Your task to perform on an android device: Search for a new lipstick on Sephora Image 0: 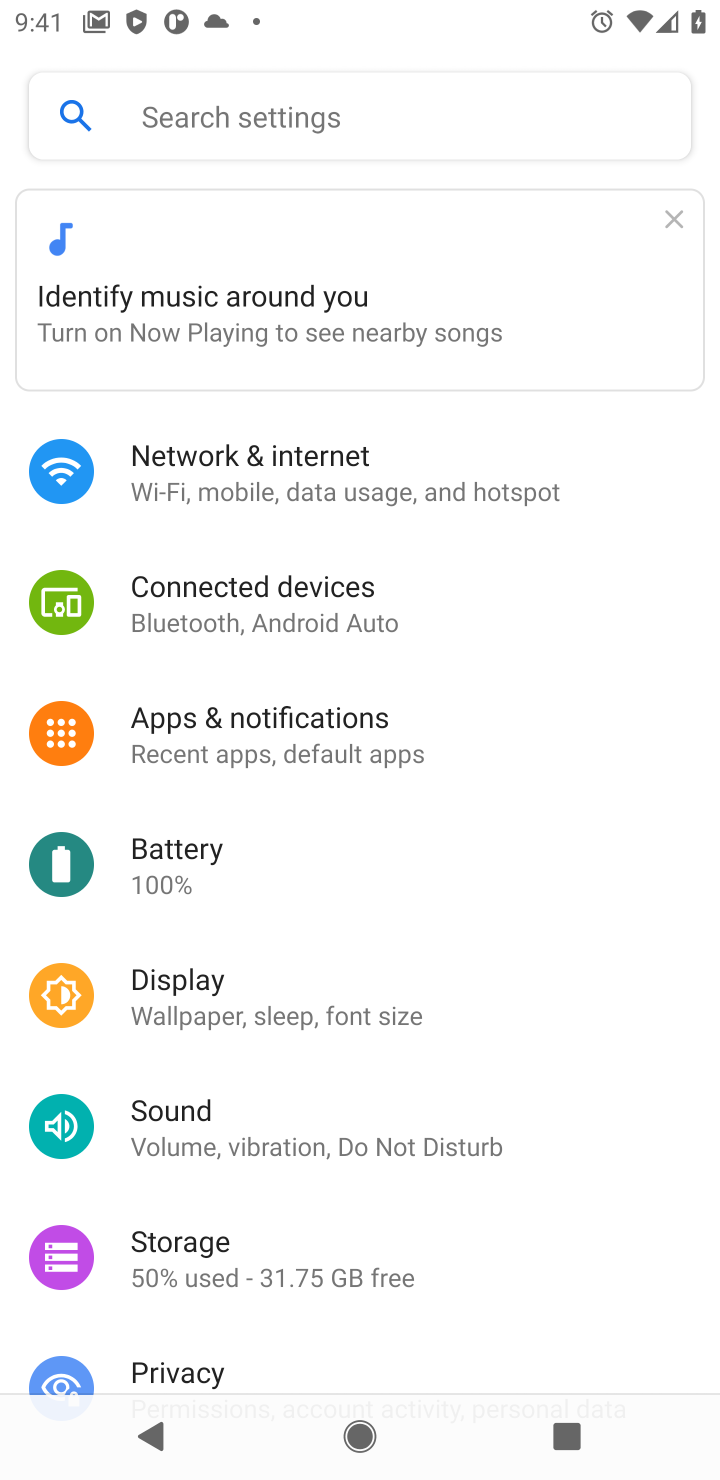
Step 0: press home button
Your task to perform on an android device: Search for a new lipstick on Sephora Image 1: 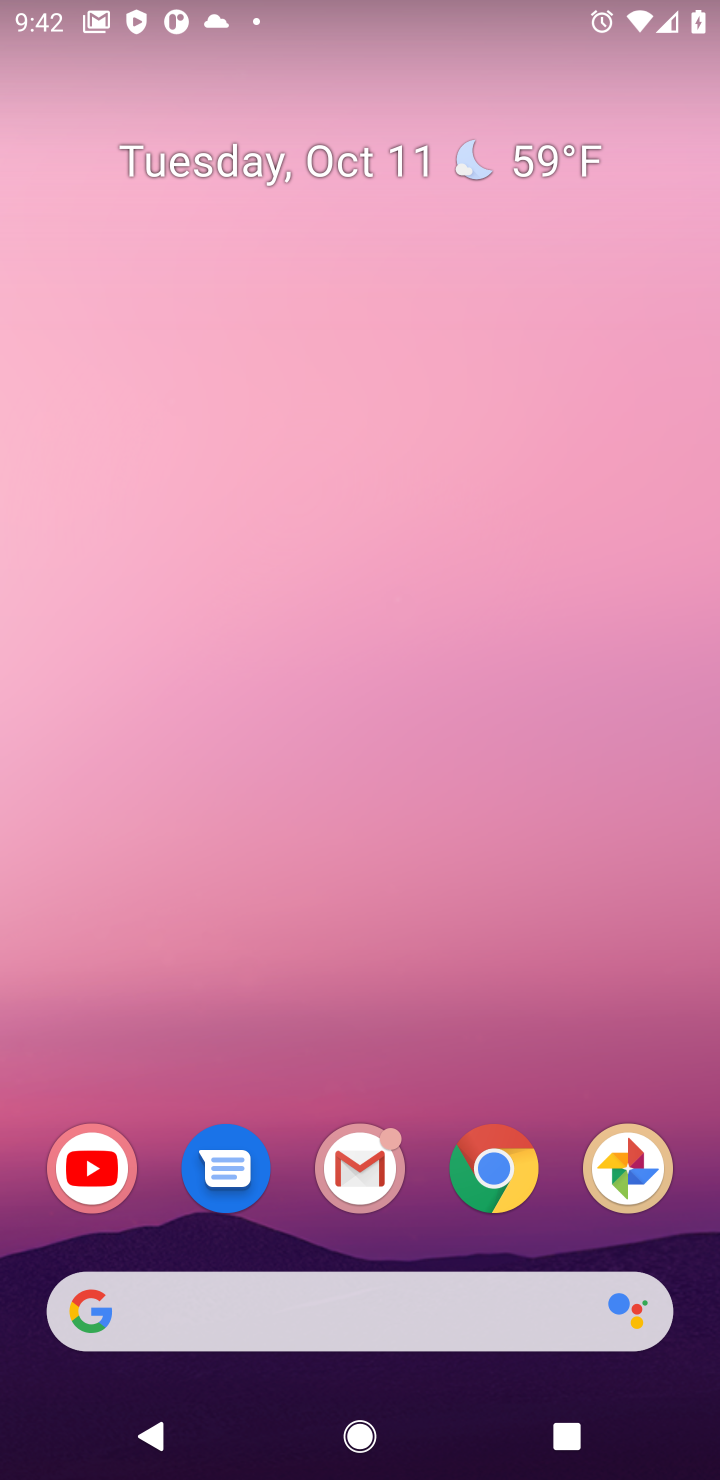
Step 1: click (495, 1172)
Your task to perform on an android device: Search for a new lipstick on Sephora Image 2: 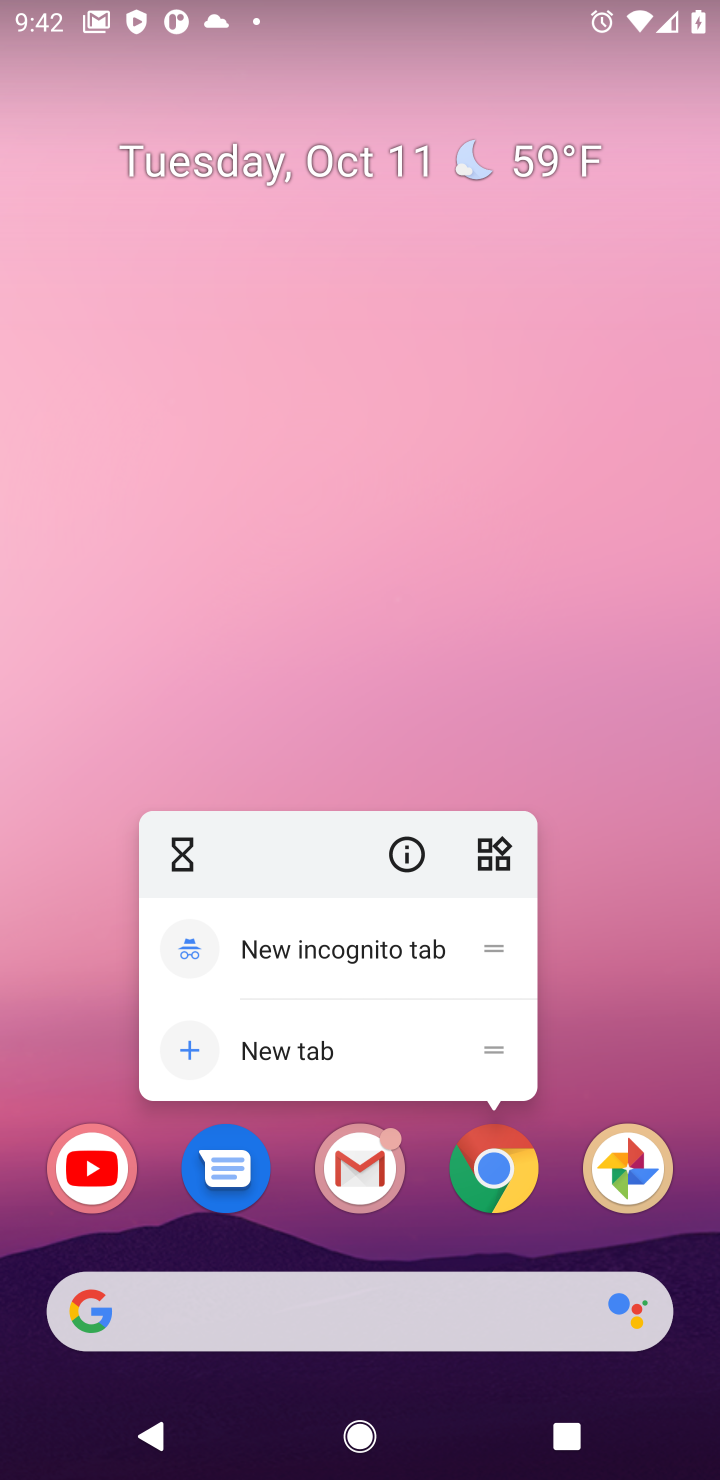
Step 2: press back button
Your task to perform on an android device: Search for a new lipstick on Sephora Image 3: 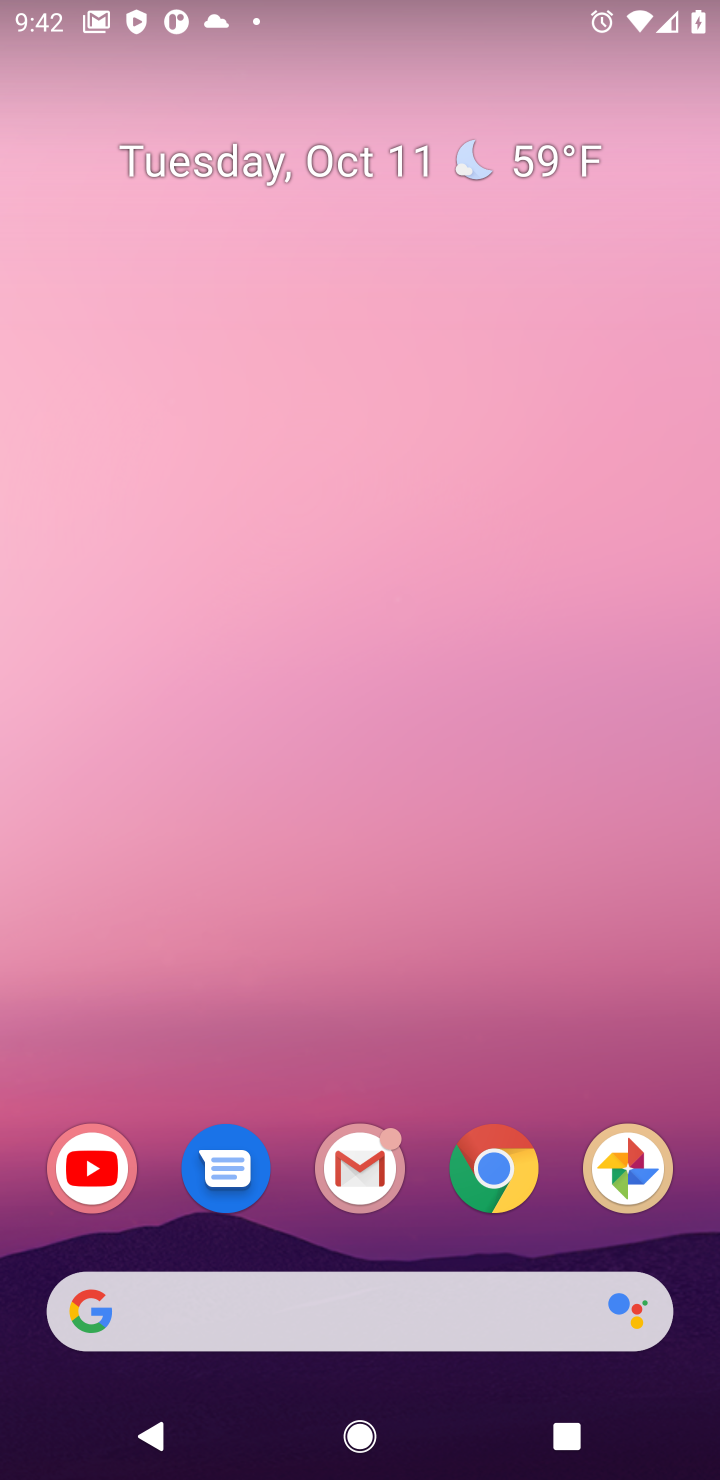
Step 3: click (501, 1197)
Your task to perform on an android device: Search for a new lipstick on Sephora Image 4: 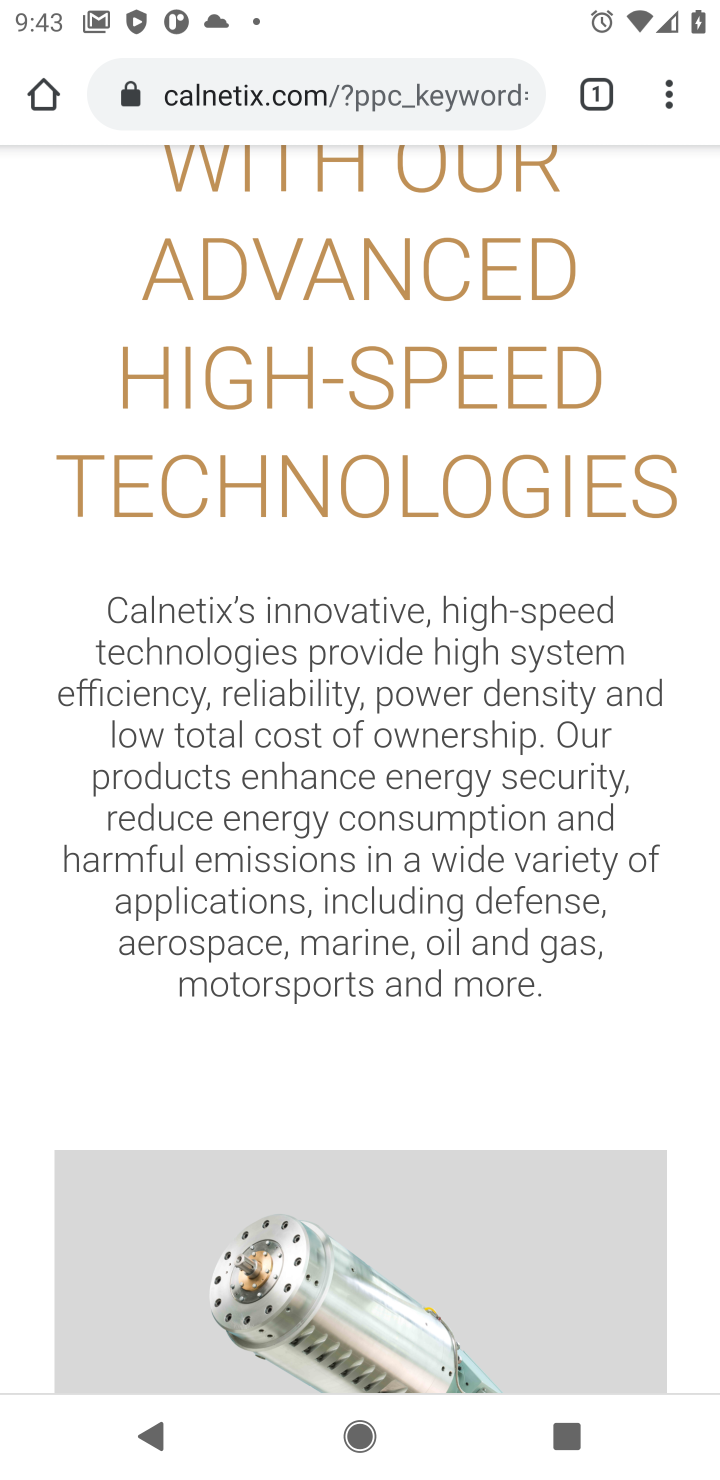
Step 4: click (241, 75)
Your task to perform on an android device: Search for a new lipstick on Sephora Image 5: 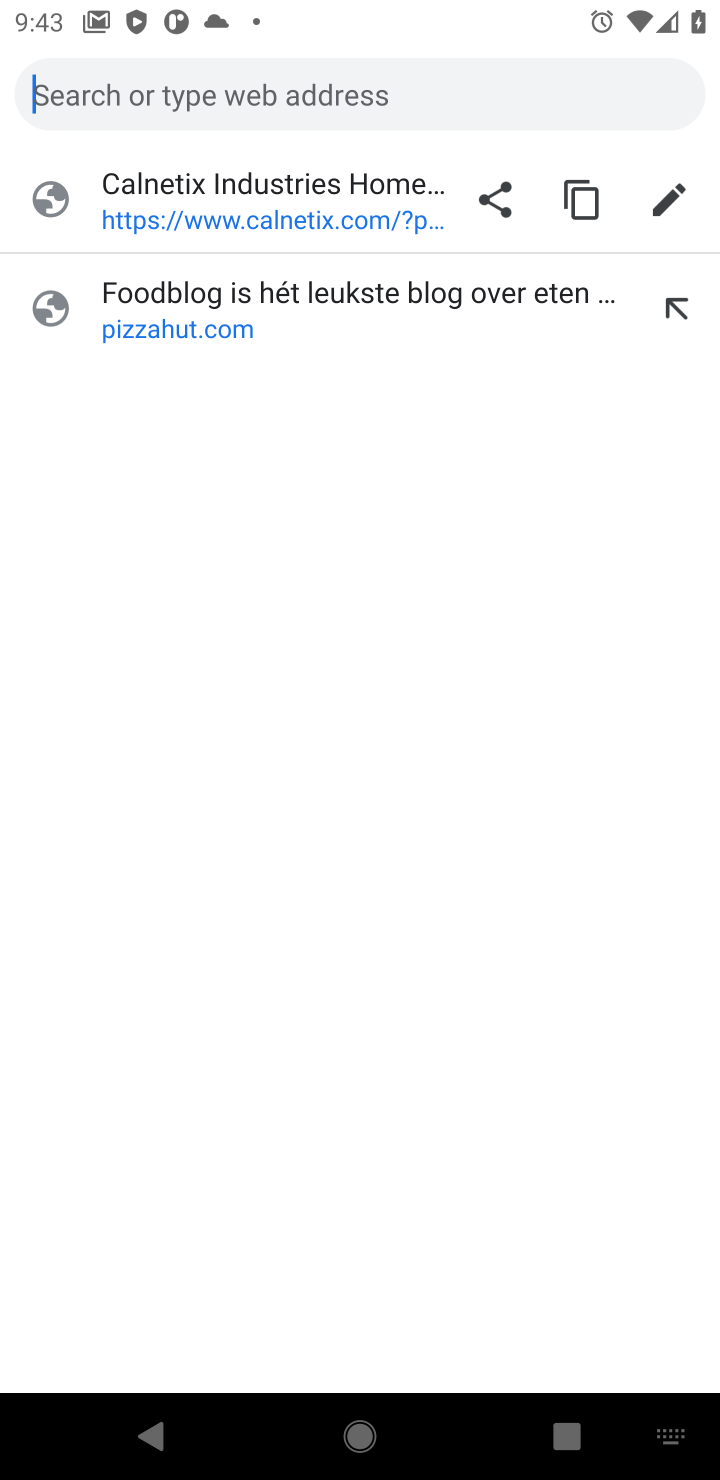
Step 5: type "new lipstick on sephora"
Your task to perform on an android device: Search for a new lipstick on Sephora Image 6: 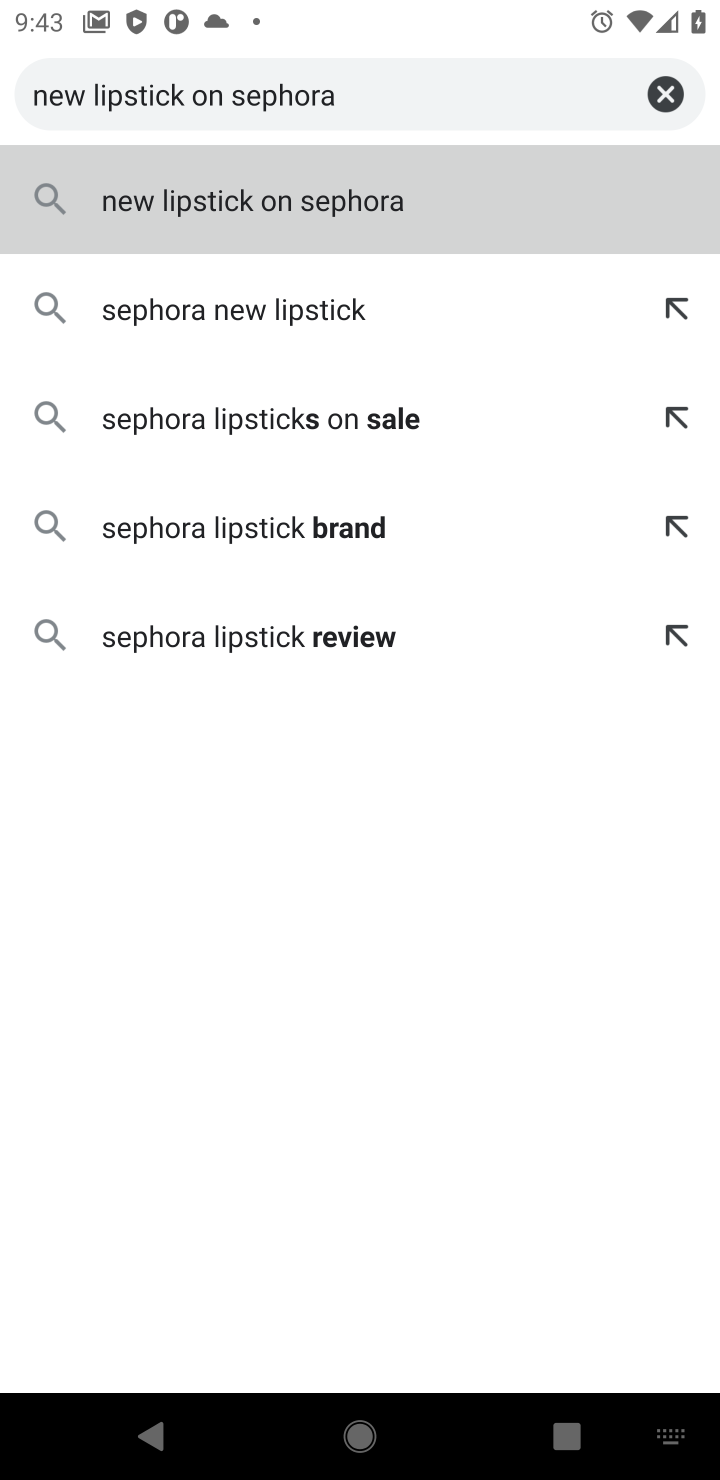
Step 6: type ""
Your task to perform on an android device: Search for a new lipstick on Sephora Image 7: 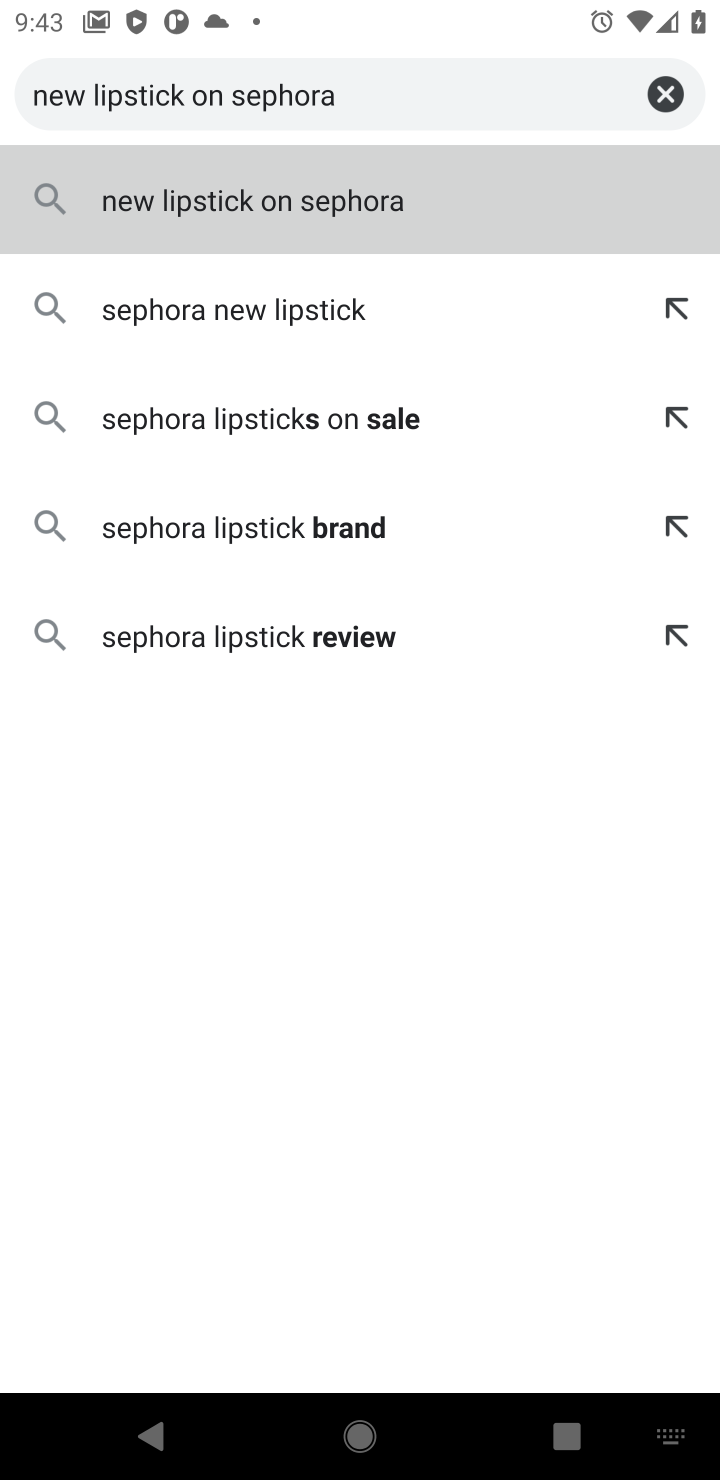
Step 7: click (396, 198)
Your task to perform on an android device: Search for a new lipstick on Sephora Image 8: 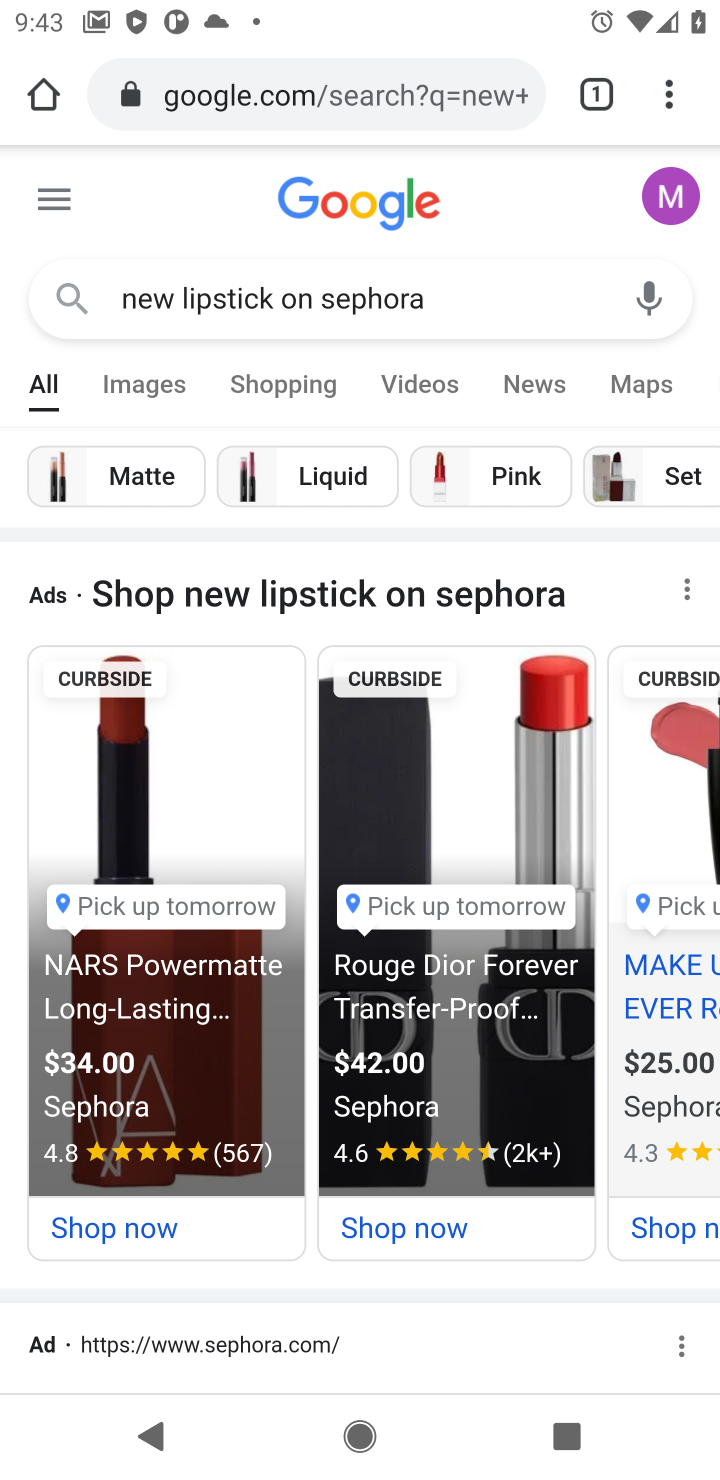
Step 8: drag from (223, 1062) to (249, 252)
Your task to perform on an android device: Search for a new lipstick on Sephora Image 9: 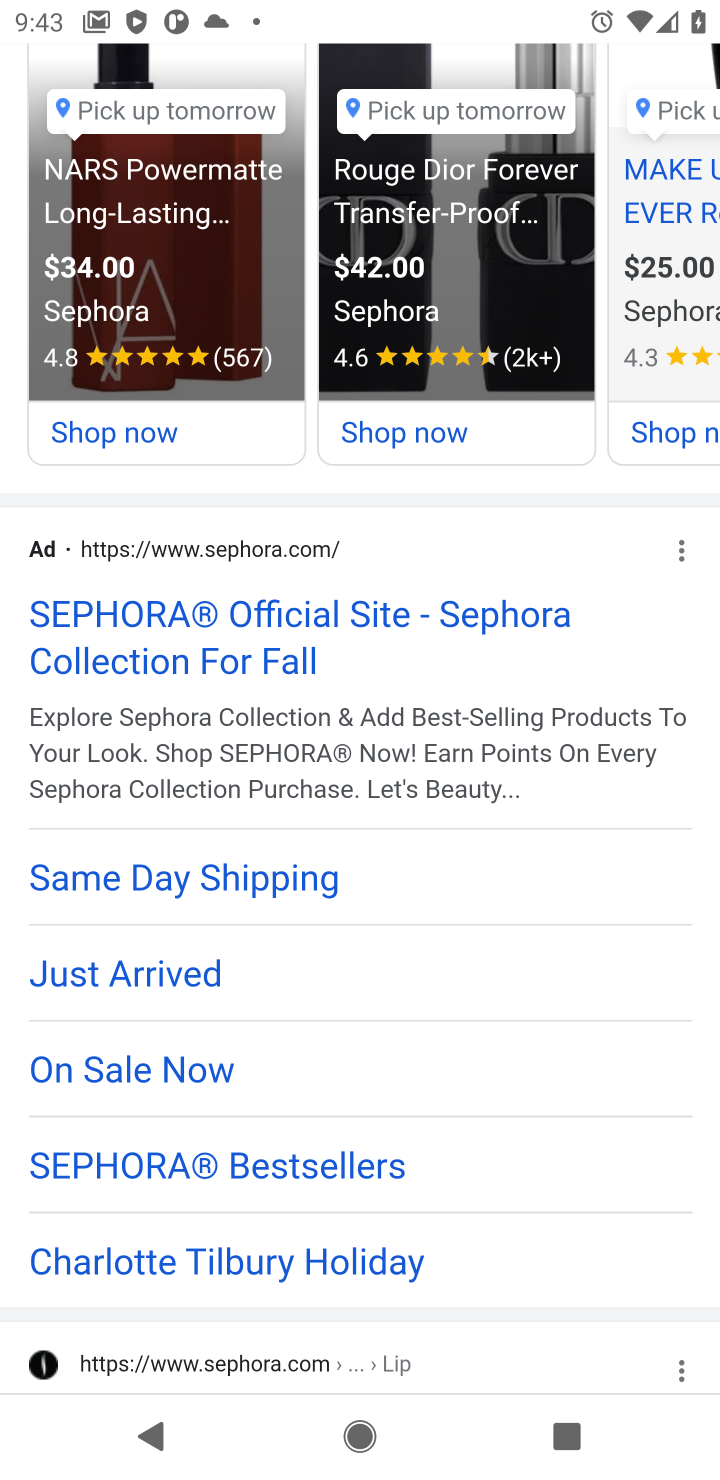
Step 9: click (117, 615)
Your task to perform on an android device: Search for a new lipstick on Sephora Image 10: 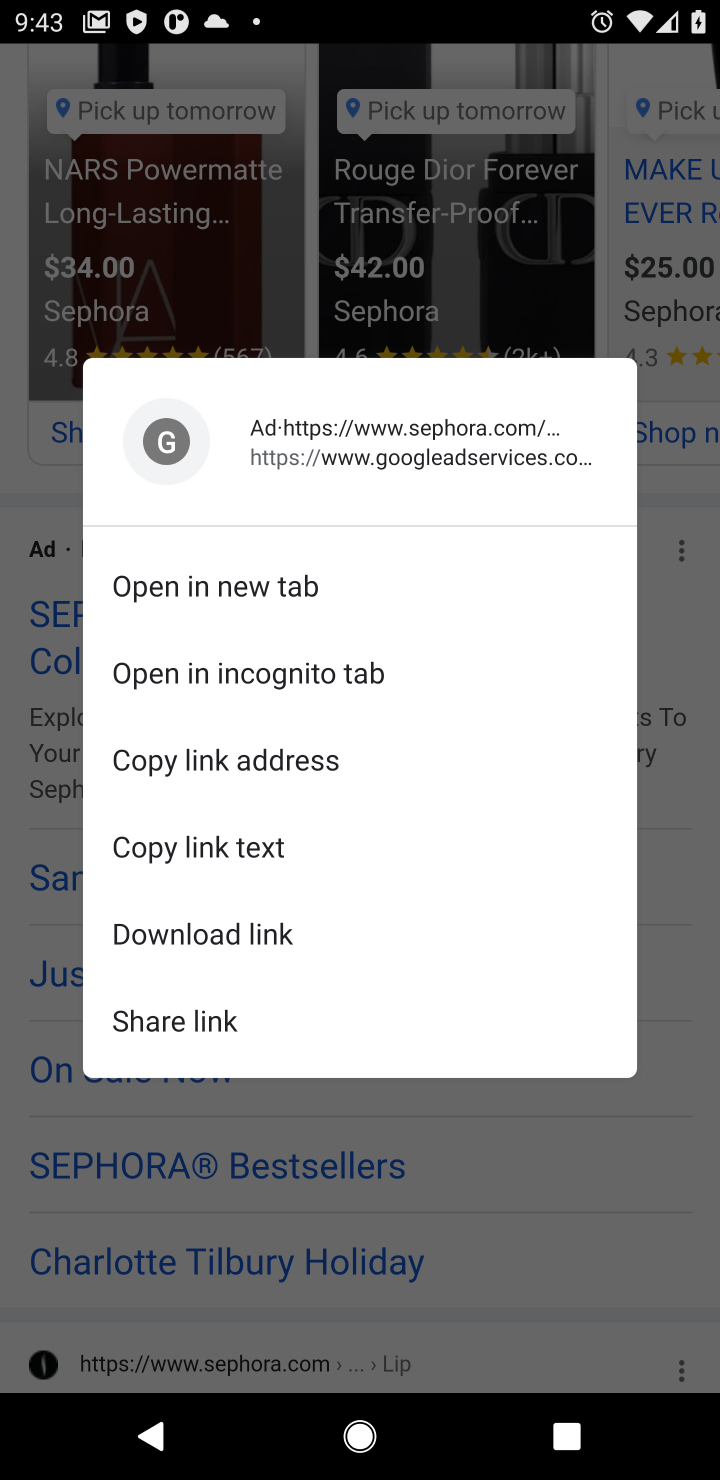
Step 10: click (303, 1164)
Your task to perform on an android device: Search for a new lipstick on Sephora Image 11: 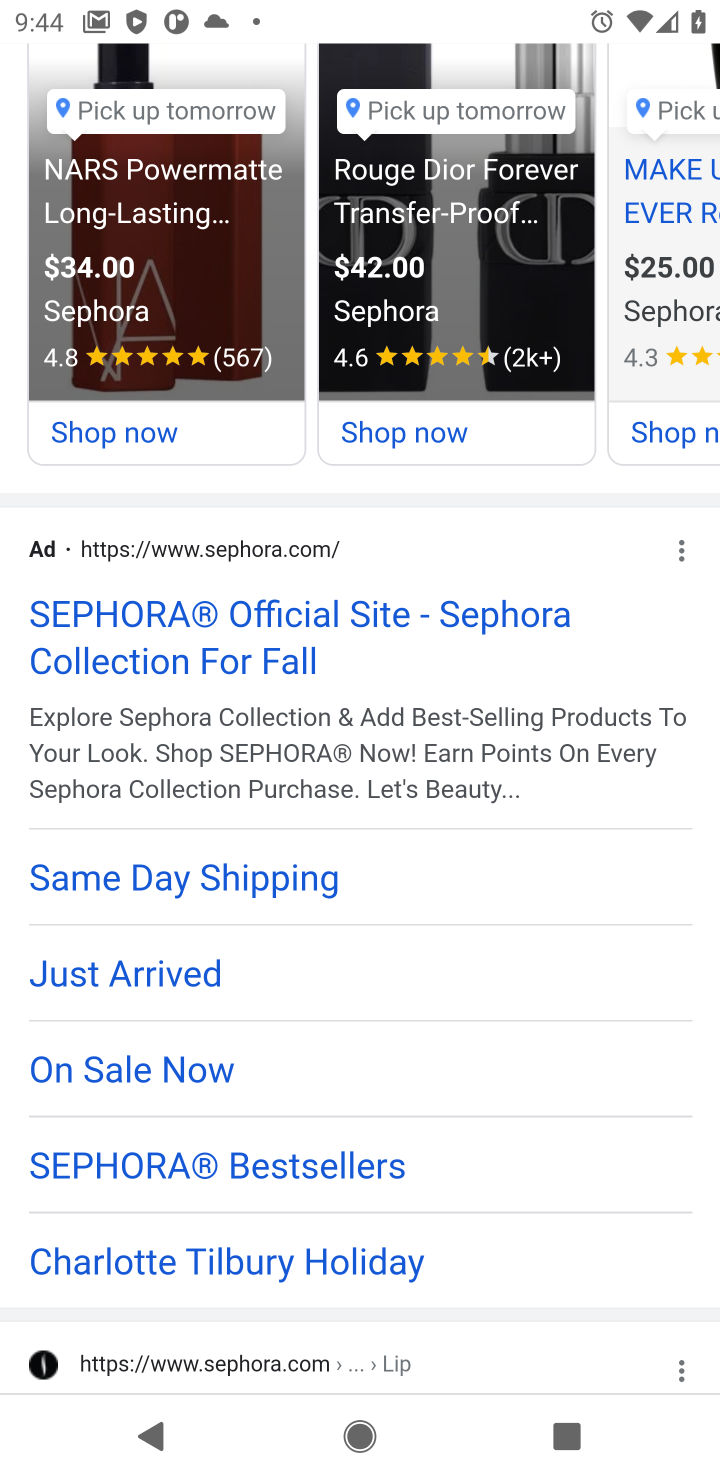
Step 11: click (341, 602)
Your task to perform on an android device: Search for a new lipstick on Sephora Image 12: 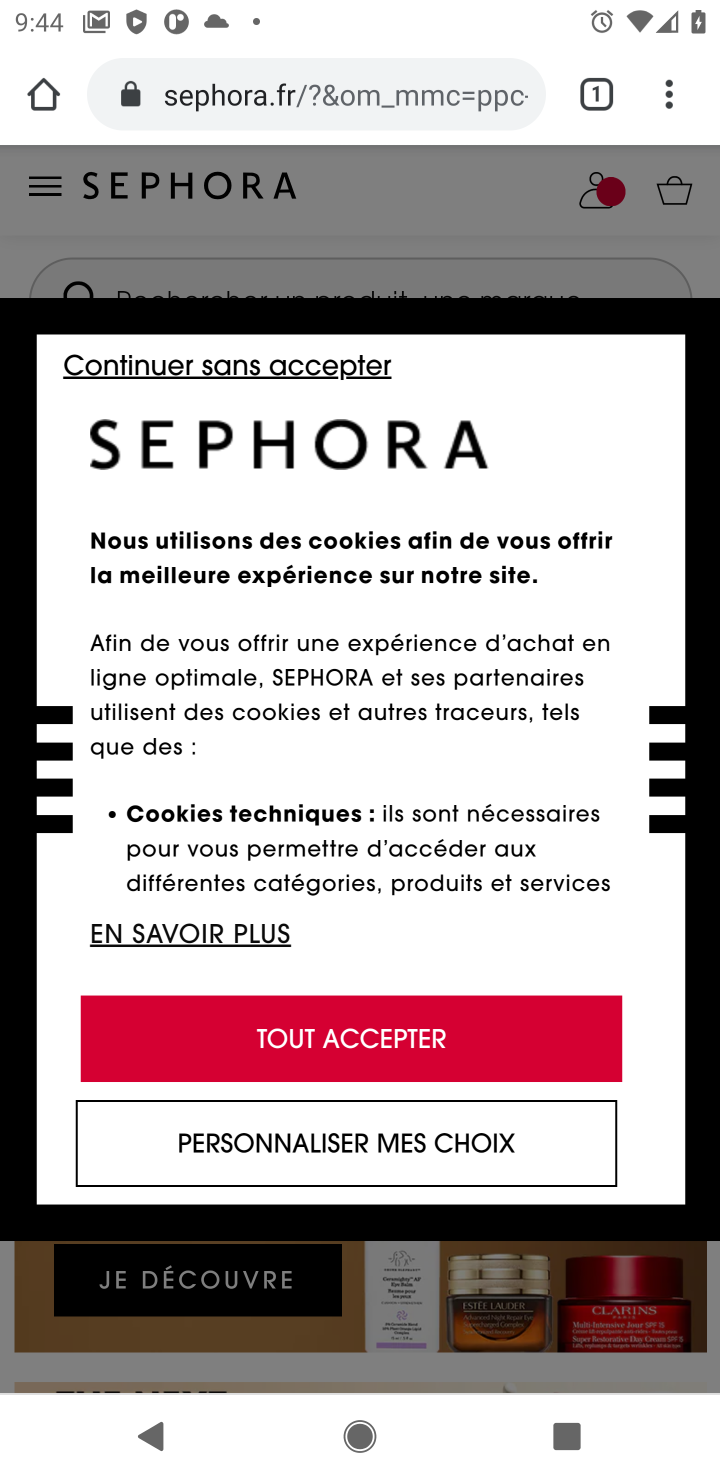
Step 12: click (420, 1033)
Your task to perform on an android device: Search for a new lipstick on Sephora Image 13: 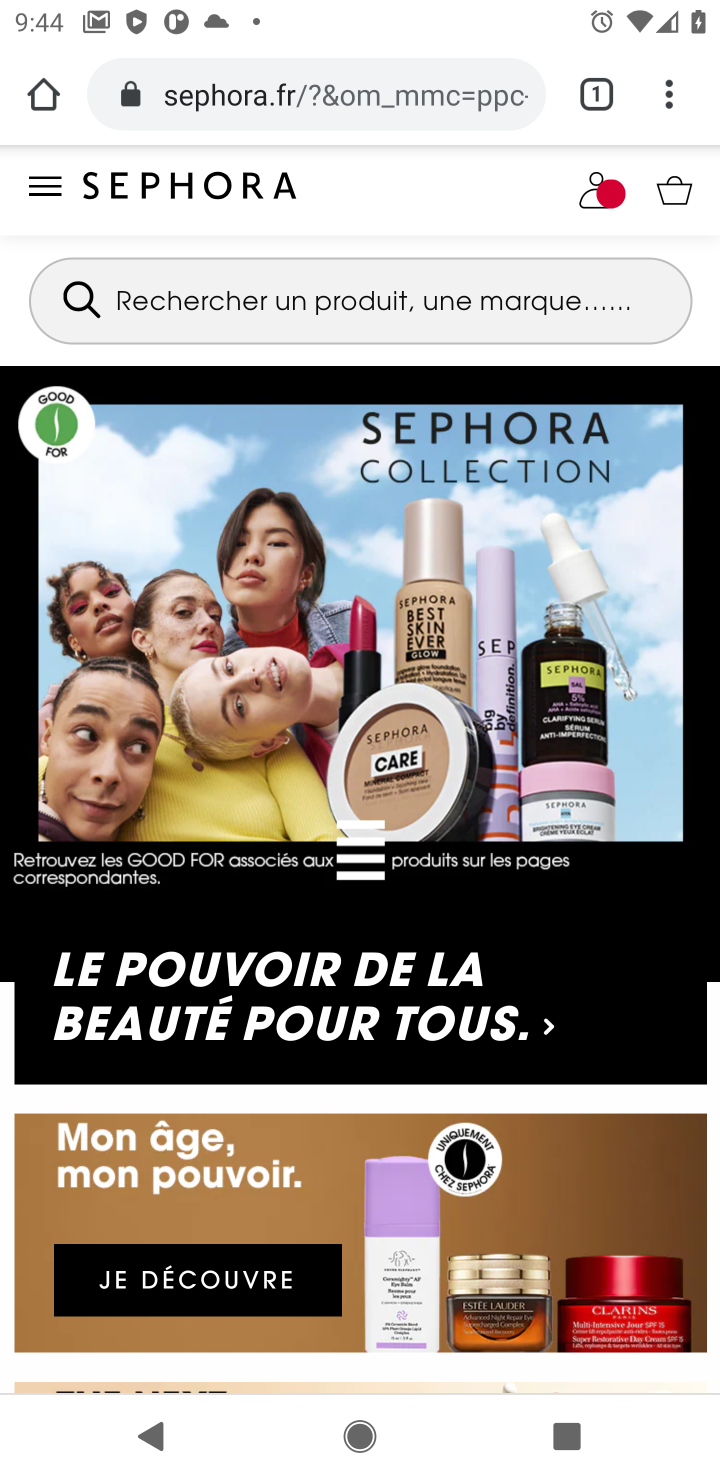
Step 13: click (379, 279)
Your task to perform on an android device: Search for a new lipstick on Sephora Image 14: 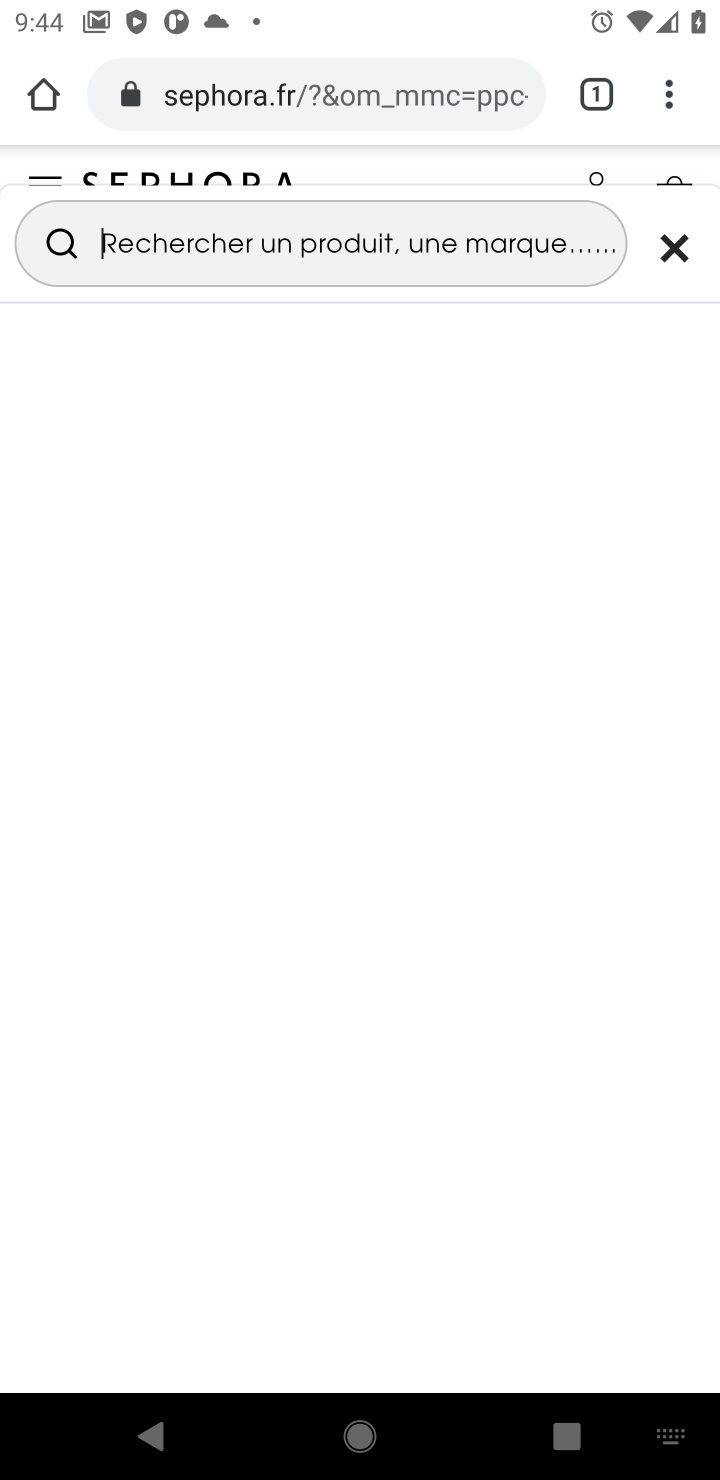
Step 14: click (547, 293)
Your task to perform on an android device: Search for a new lipstick on Sephora Image 15: 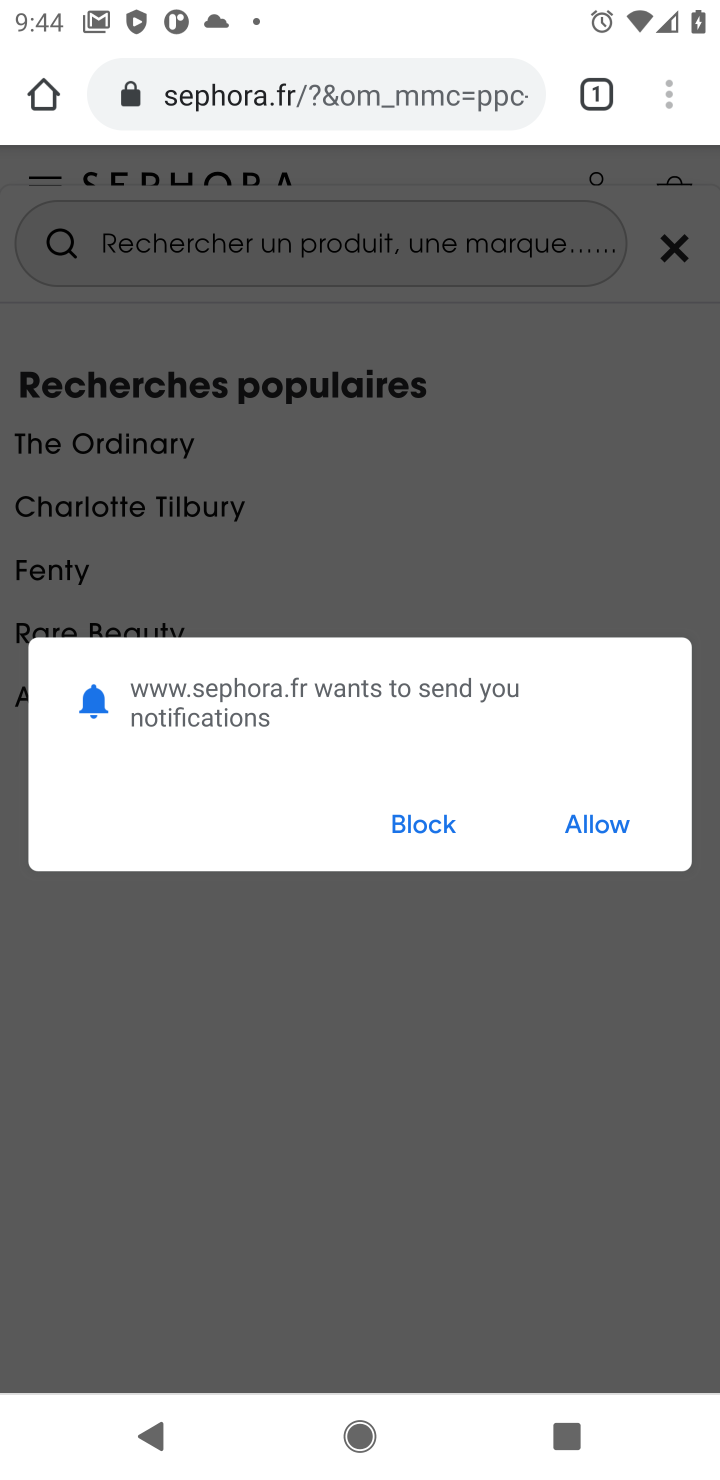
Step 15: type "lpsticlk"
Your task to perform on an android device: Search for a new lipstick on Sephora Image 16: 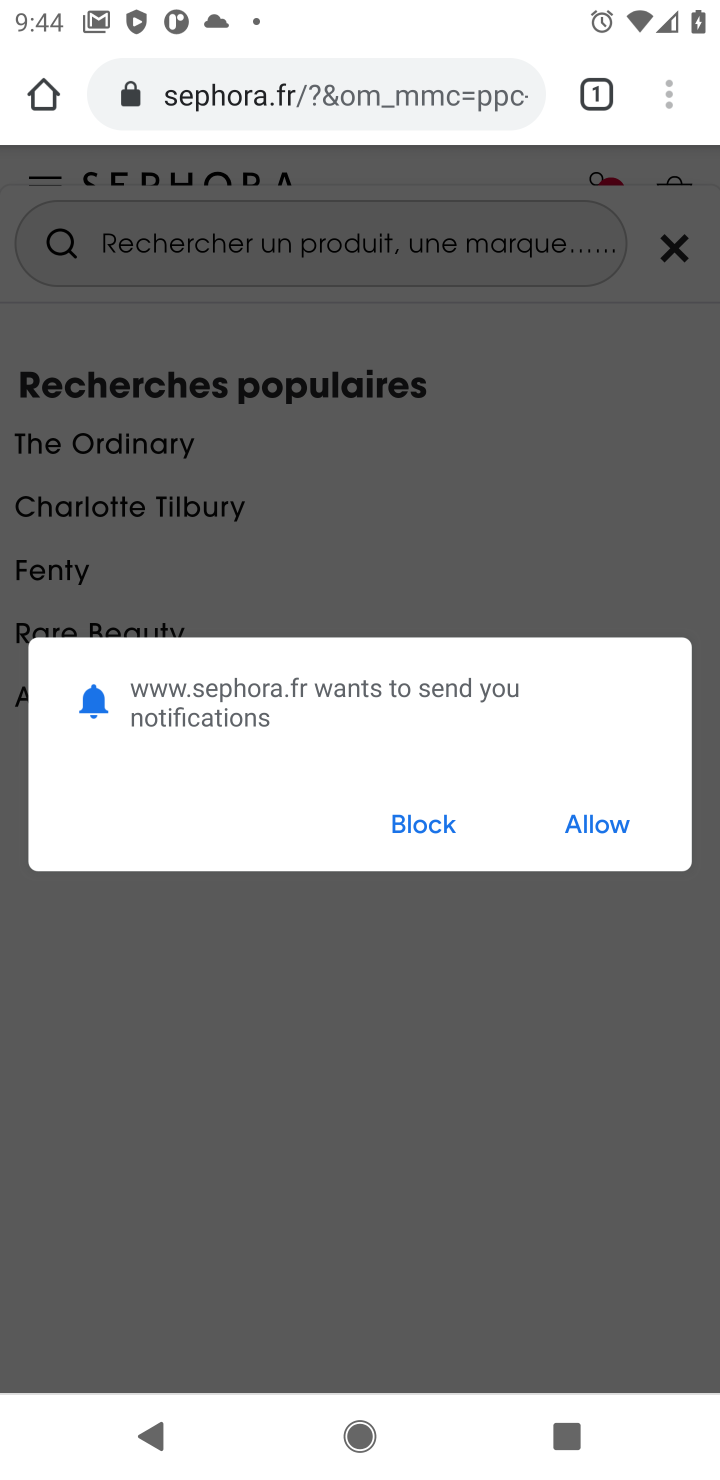
Step 16: type ""
Your task to perform on an android device: Search for a new lipstick on Sephora Image 17: 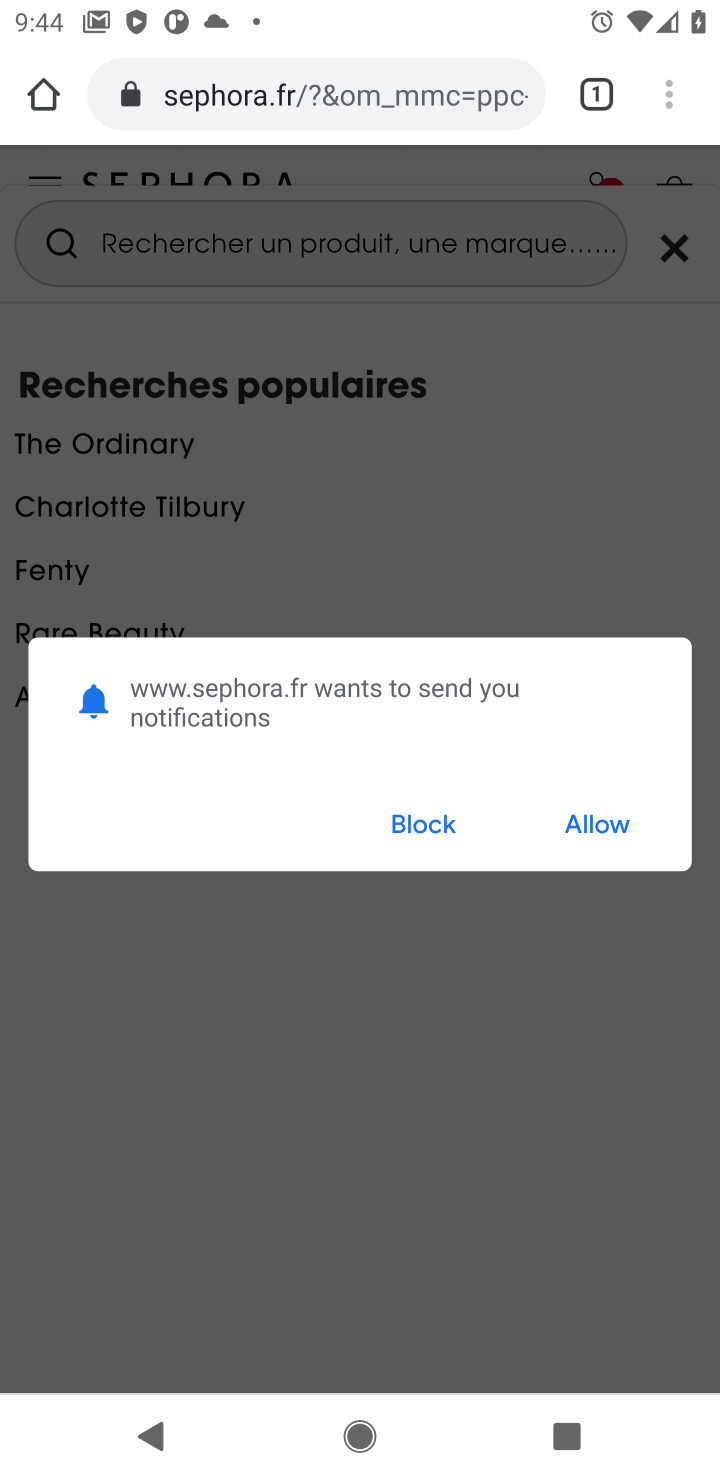
Step 17: click (599, 816)
Your task to perform on an android device: Search for a new lipstick on Sephora Image 18: 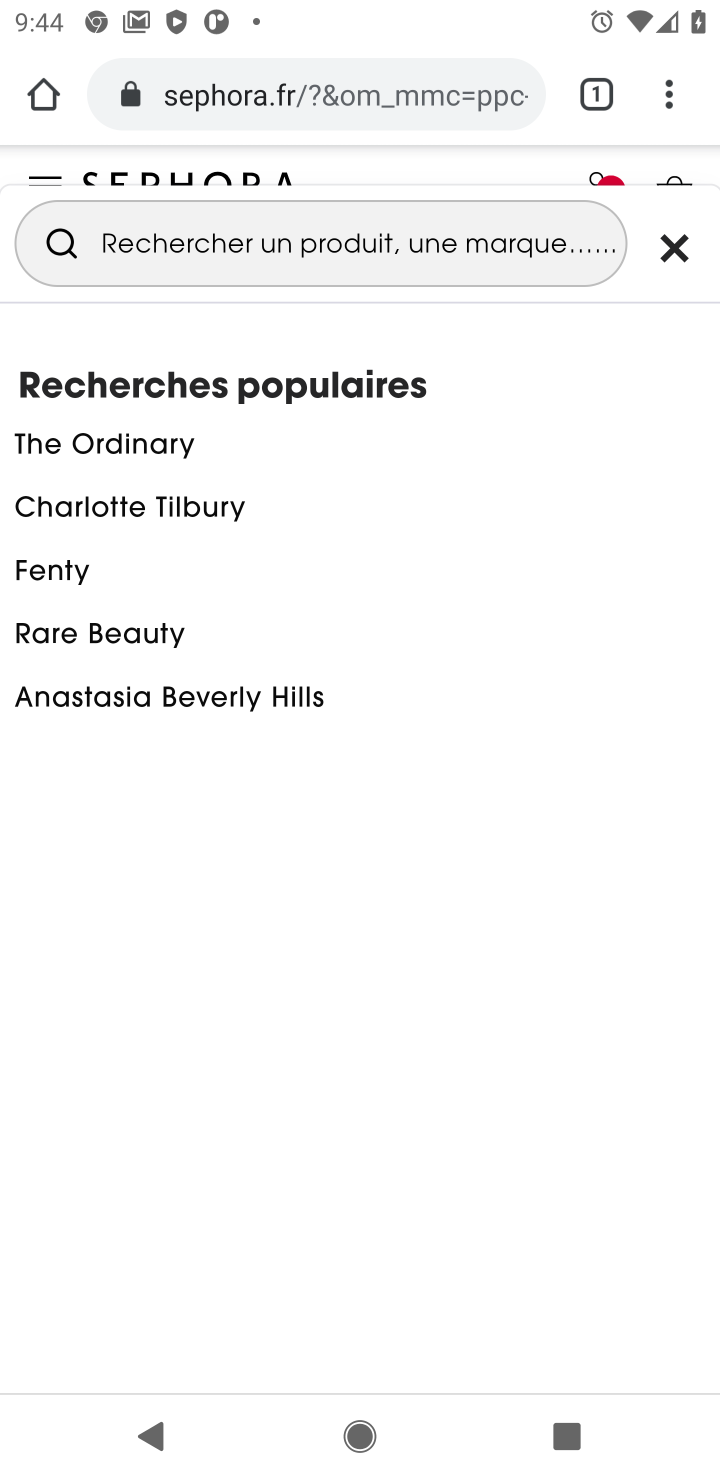
Step 18: click (462, 240)
Your task to perform on an android device: Search for a new lipstick on Sephora Image 19: 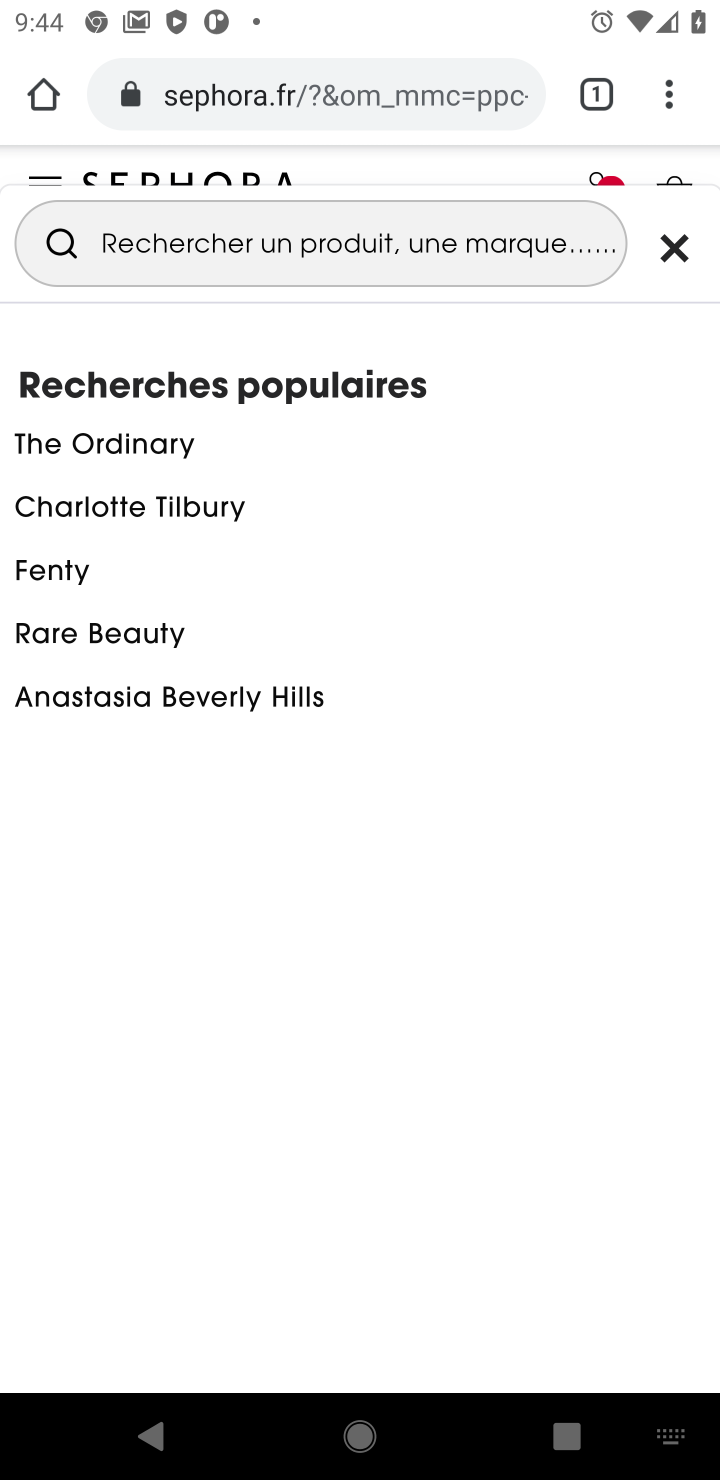
Step 19: type "lipstick"
Your task to perform on an android device: Search for a new lipstick on Sephora Image 20: 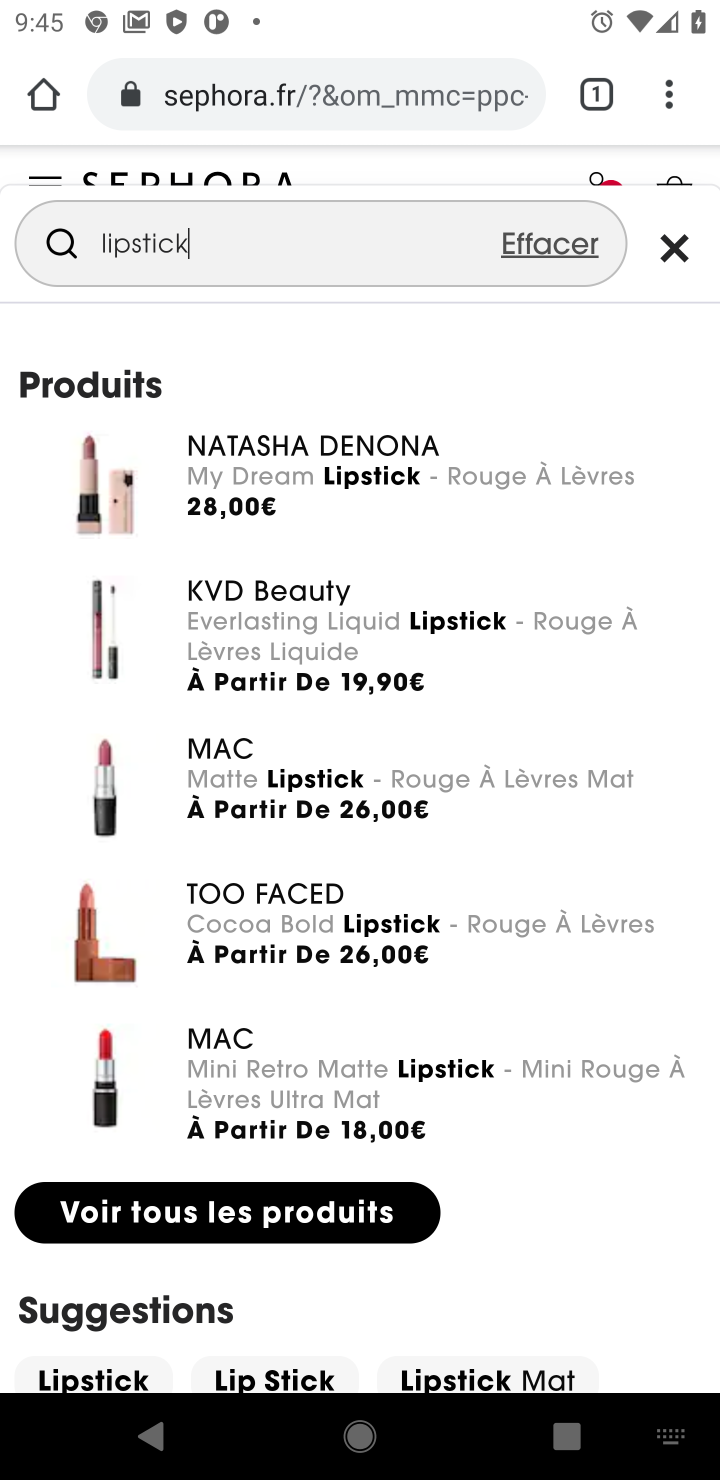
Step 20: task complete